Your task to perform on an android device: toggle airplane mode Image 0: 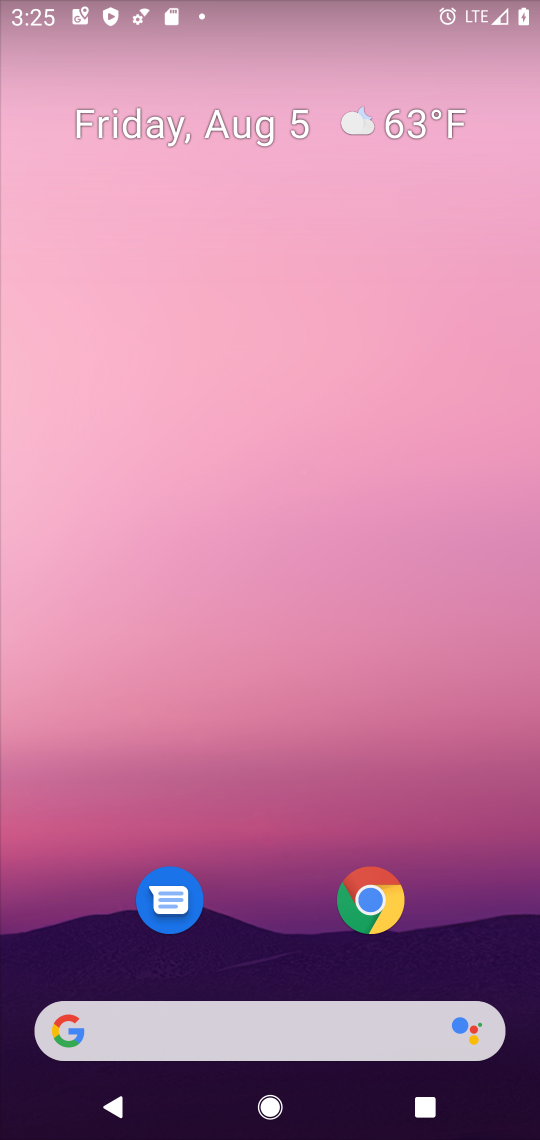
Step 0: drag from (429, 17) to (301, 789)
Your task to perform on an android device: toggle airplane mode Image 1: 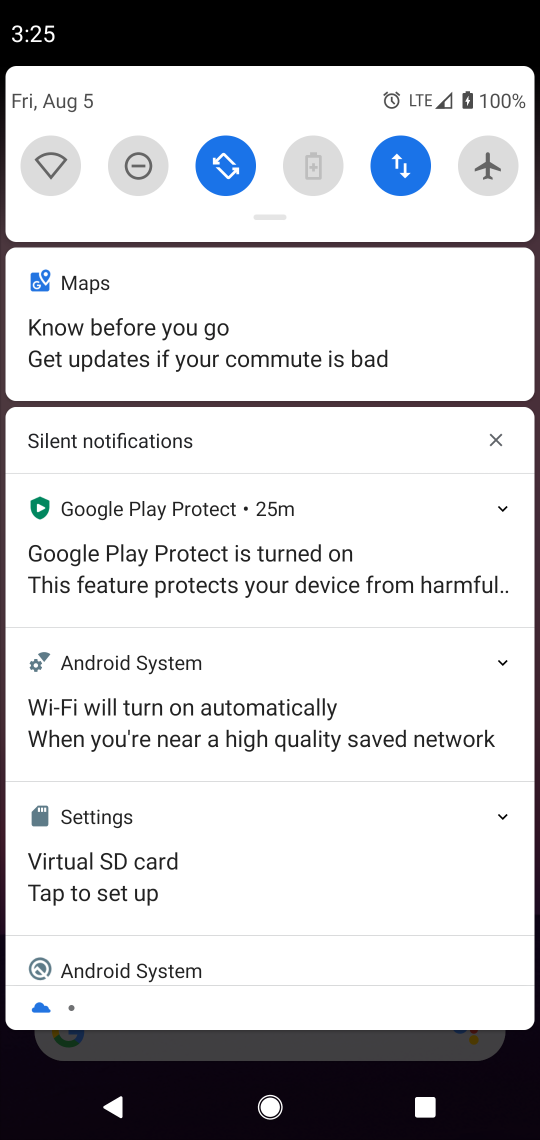
Step 1: click (477, 167)
Your task to perform on an android device: toggle airplane mode Image 2: 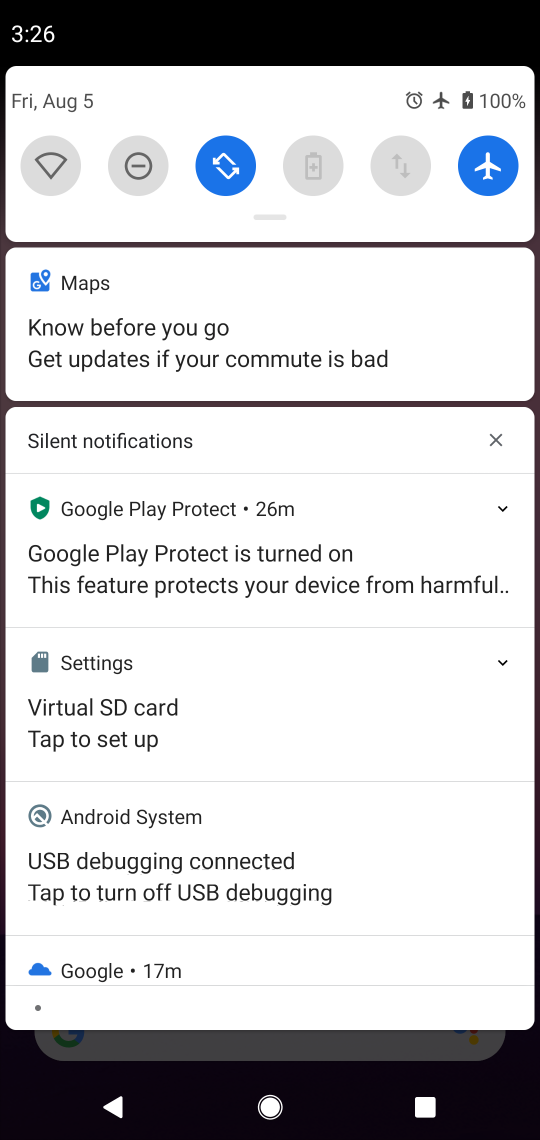
Step 2: task complete